Your task to perform on an android device: find which apps use the phone's location Image 0: 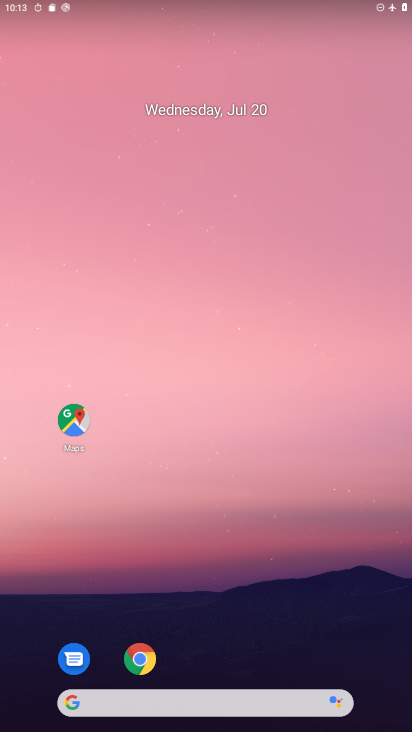
Step 0: drag from (320, 626) to (76, 0)
Your task to perform on an android device: find which apps use the phone's location Image 1: 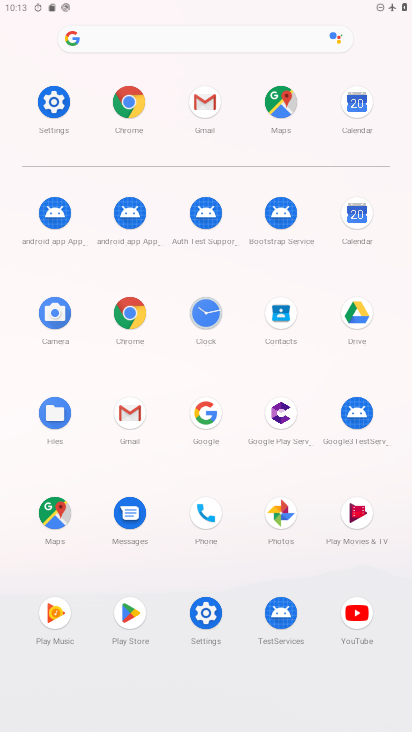
Step 1: click (55, 104)
Your task to perform on an android device: find which apps use the phone's location Image 2: 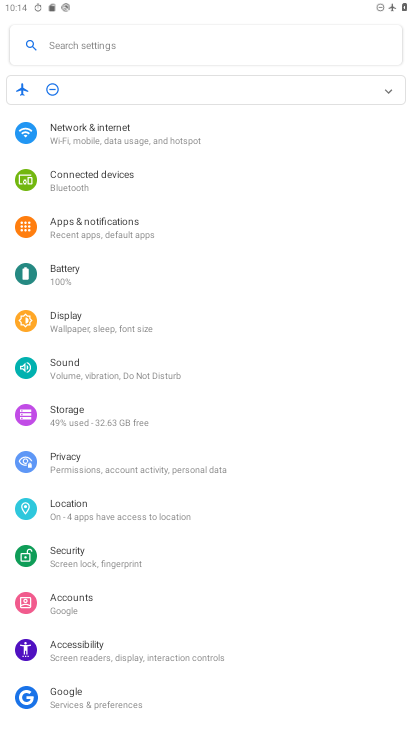
Step 2: click (92, 515)
Your task to perform on an android device: find which apps use the phone's location Image 3: 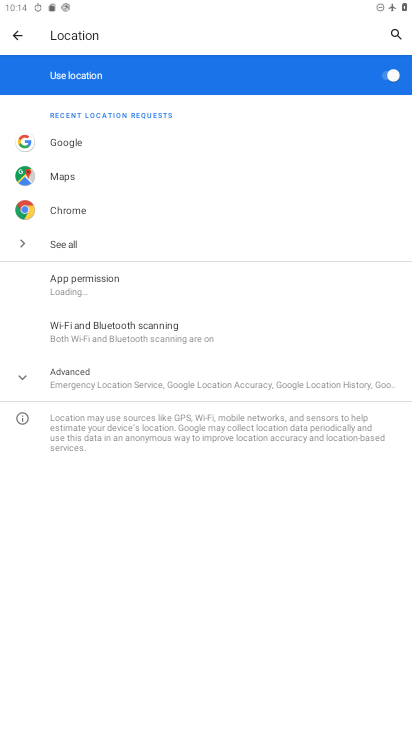
Step 3: click (82, 273)
Your task to perform on an android device: find which apps use the phone's location Image 4: 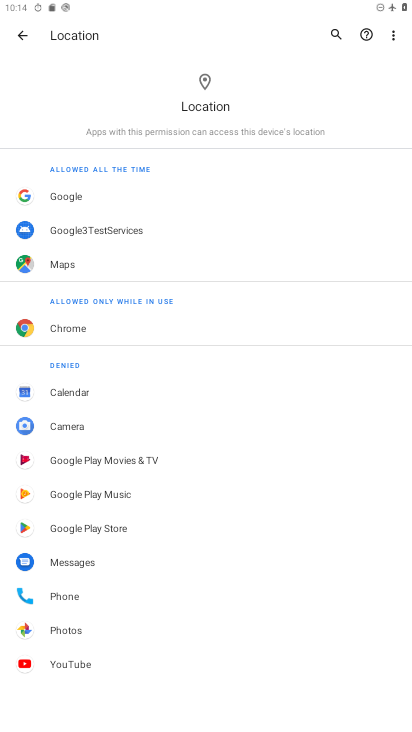
Step 4: task complete